Your task to perform on an android device: Go to accessibility settings Image 0: 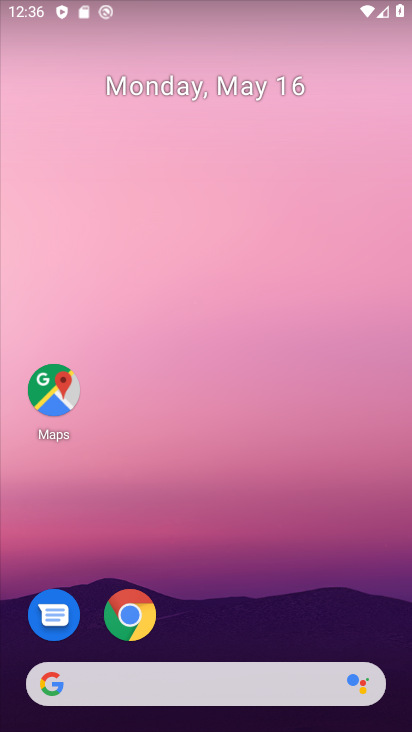
Step 0: drag from (280, 596) to (256, 130)
Your task to perform on an android device: Go to accessibility settings Image 1: 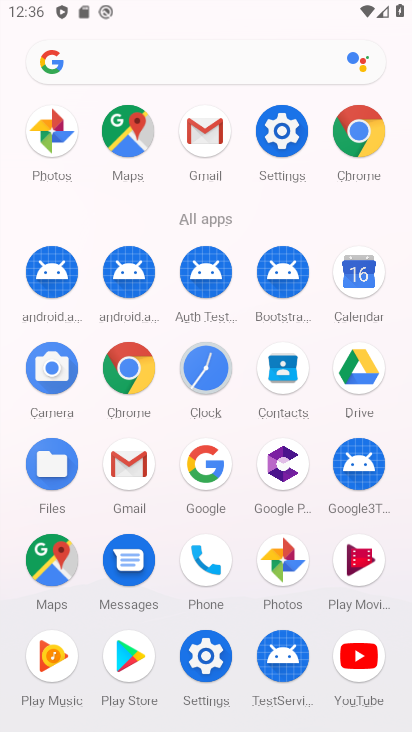
Step 1: click (293, 121)
Your task to perform on an android device: Go to accessibility settings Image 2: 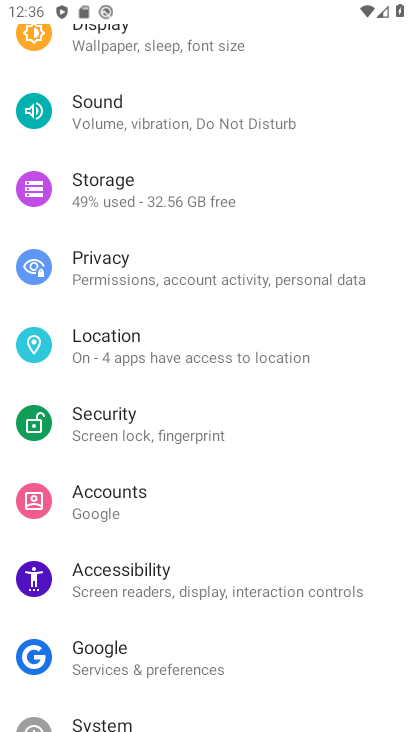
Step 2: click (144, 579)
Your task to perform on an android device: Go to accessibility settings Image 3: 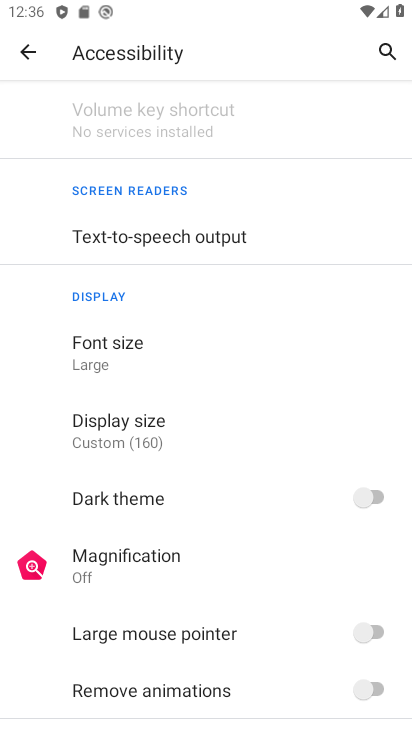
Step 3: task complete